Your task to perform on an android device: open sync settings in chrome Image 0: 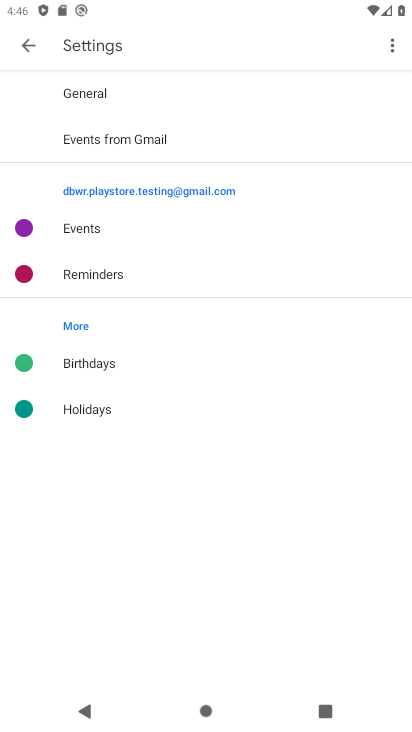
Step 0: press home button
Your task to perform on an android device: open sync settings in chrome Image 1: 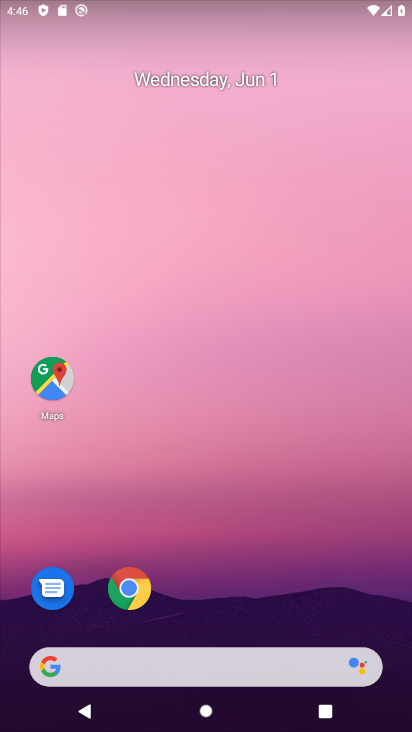
Step 1: click (123, 588)
Your task to perform on an android device: open sync settings in chrome Image 2: 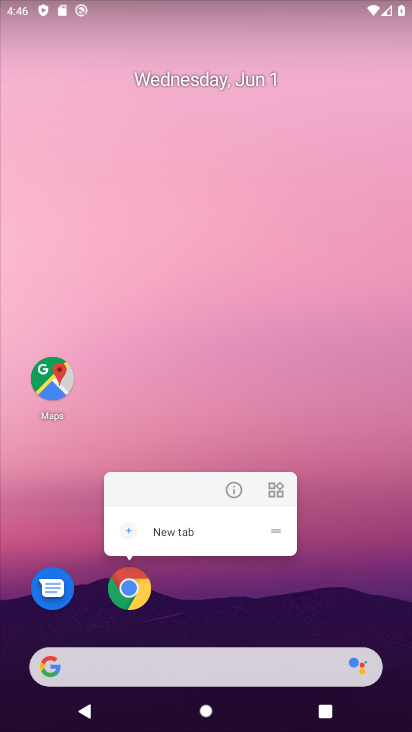
Step 2: click (123, 587)
Your task to perform on an android device: open sync settings in chrome Image 3: 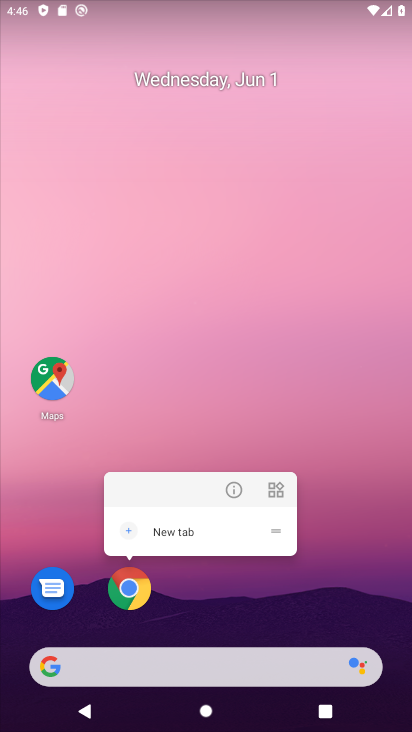
Step 3: click (123, 587)
Your task to perform on an android device: open sync settings in chrome Image 4: 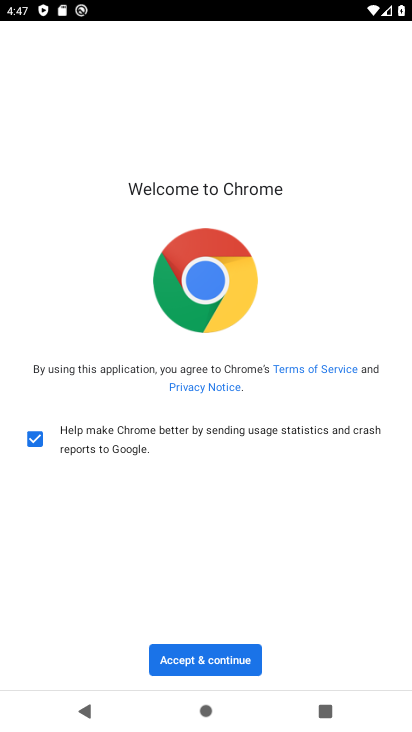
Step 4: click (201, 665)
Your task to perform on an android device: open sync settings in chrome Image 5: 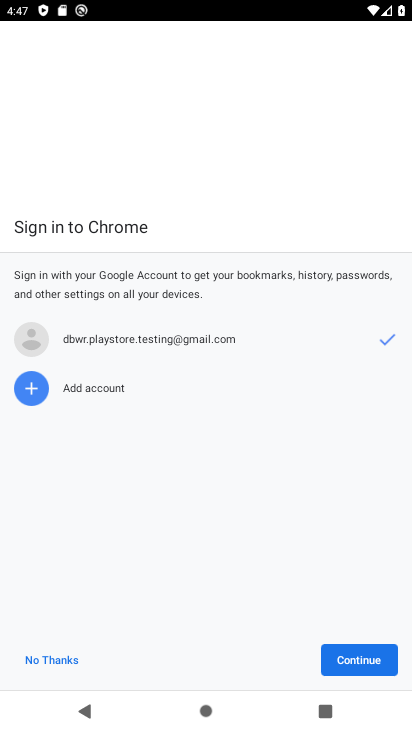
Step 5: click (351, 656)
Your task to perform on an android device: open sync settings in chrome Image 6: 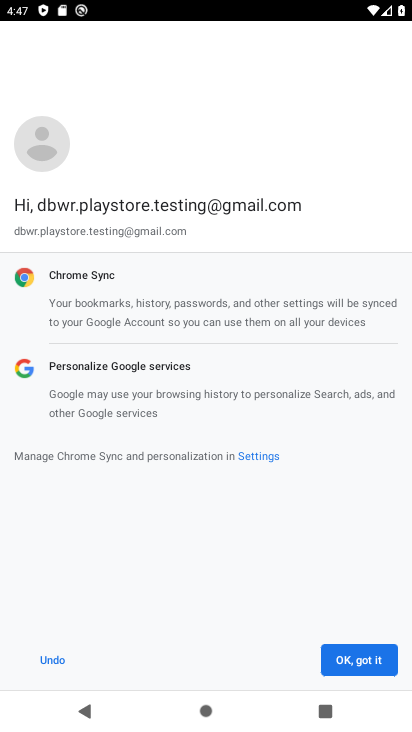
Step 6: click (353, 653)
Your task to perform on an android device: open sync settings in chrome Image 7: 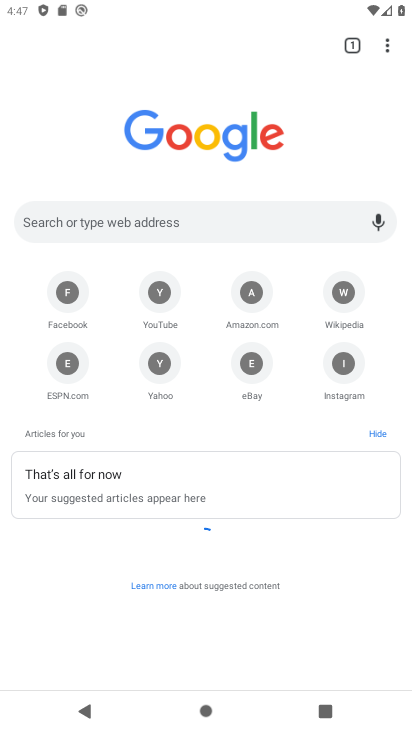
Step 7: click (385, 58)
Your task to perform on an android device: open sync settings in chrome Image 8: 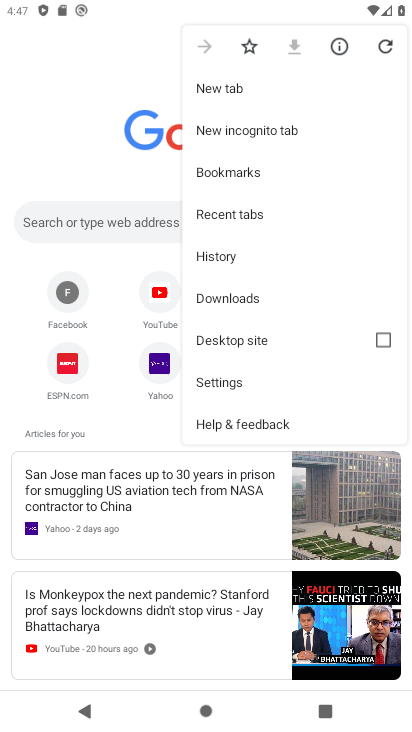
Step 8: click (217, 375)
Your task to perform on an android device: open sync settings in chrome Image 9: 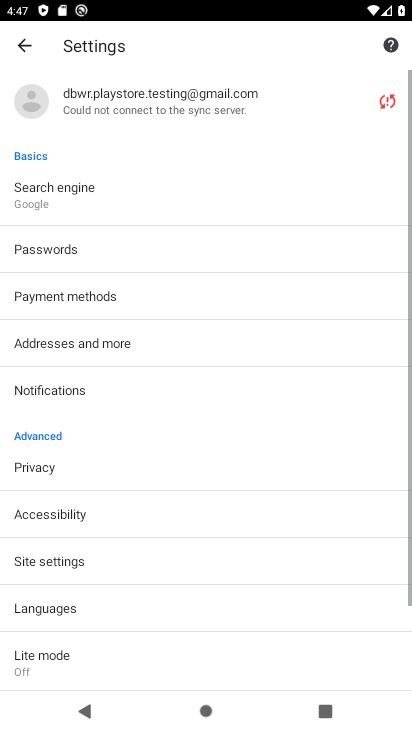
Step 9: click (191, 100)
Your task to perform on an android device: open sync settings in chrome Image 10: 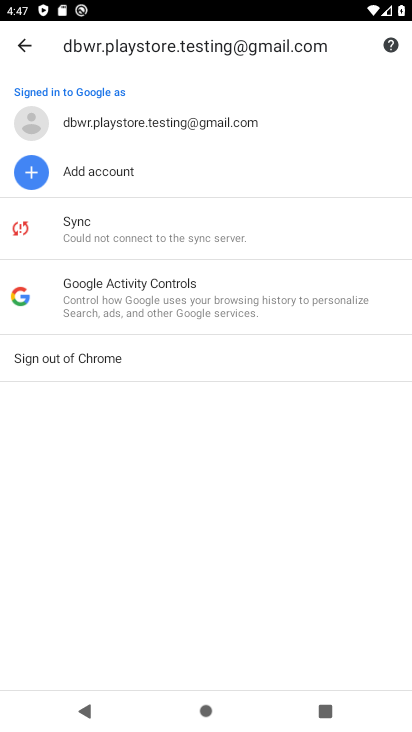
Step 10: click (125, 231)
Your task to perform on an android device: open sync settings in chrome Image 11: 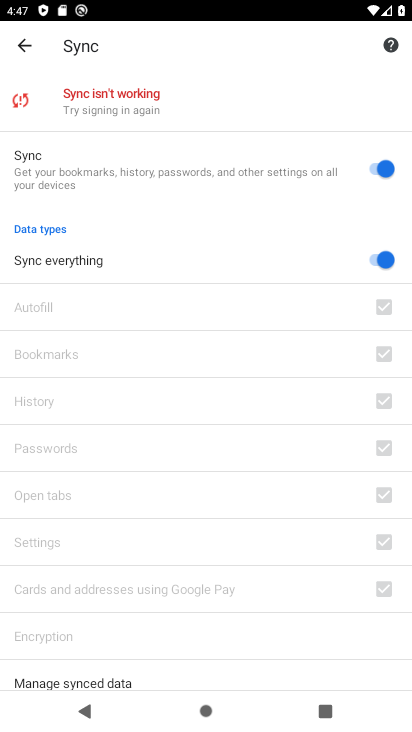
Step 11: task complete